Your task to perform on an android device: Open Google Image 0: 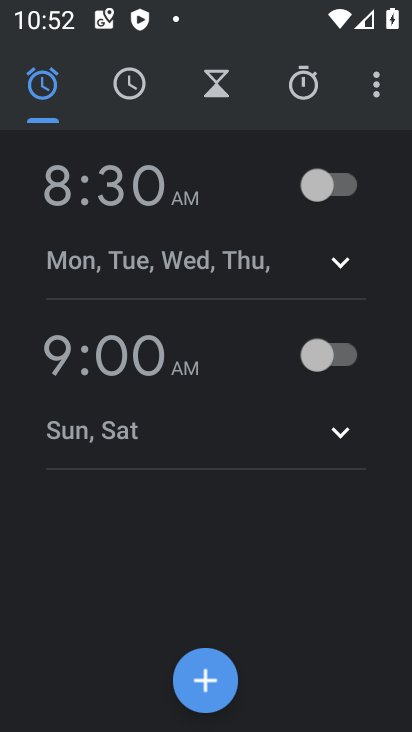
Step 0: press home button
Your task to perform on an android device: Open Google Image 1: 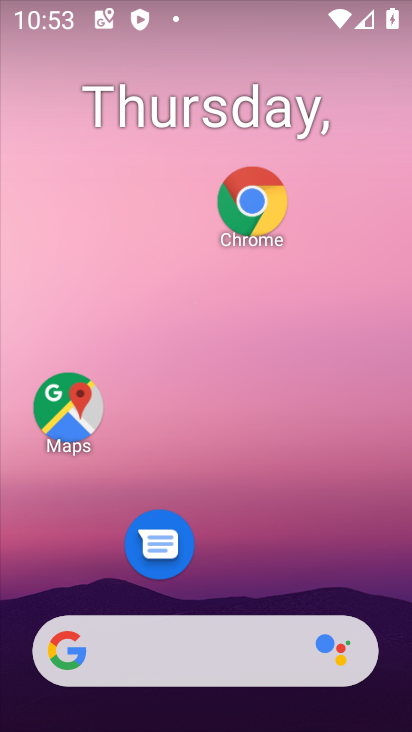
Step 1: drag from (218, 598) to (211, 188)
Your task to perform on an android device: Open Google Image 2: 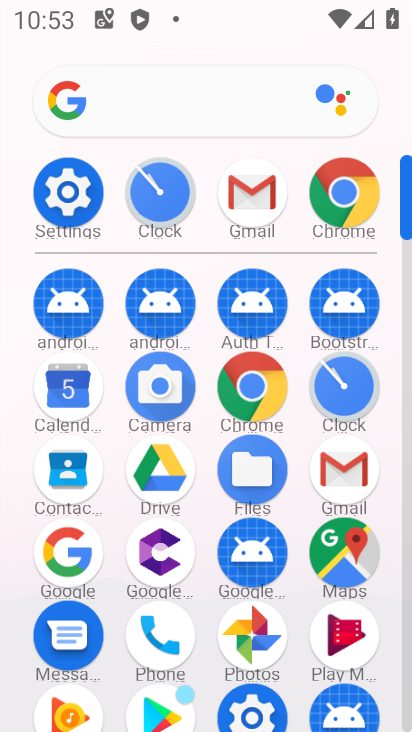
Step 2: click (61, 543)
Your task to perform on an android device: Open Google Image 3: 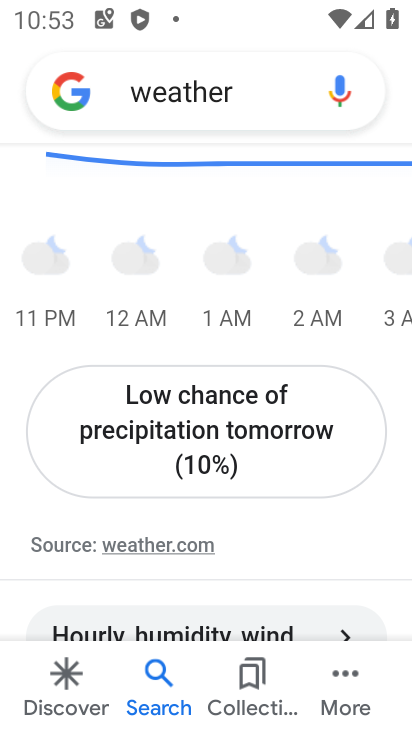
Step 3: task complete